Your task to perform on an android device: set an alarm Image 0: 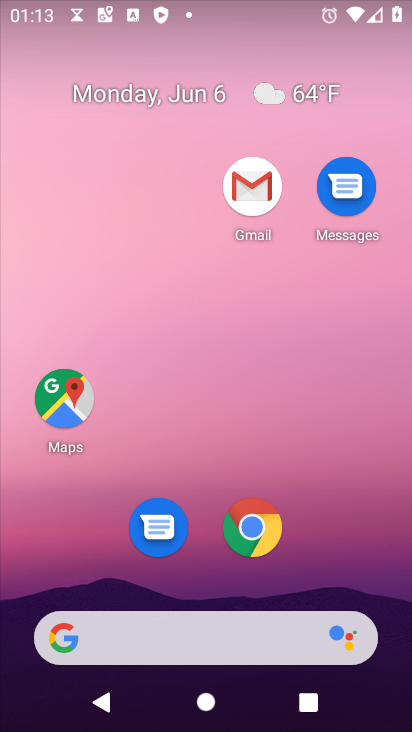
Step 0: drag from (351, 552) to (339, 31)
Your task to perform on an android device: set an alarm Image 1: 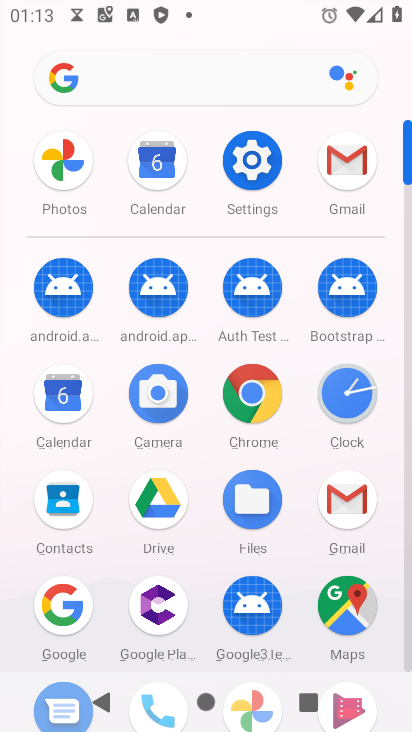
Step 1: click (356, 405)
Your task to perform on an android device: set an alarm Image 2: 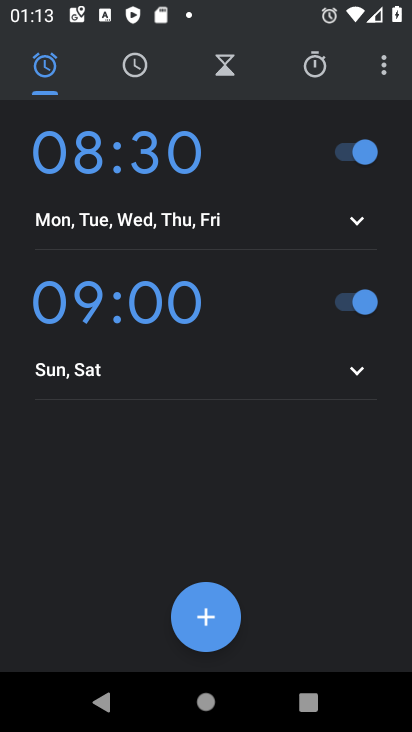
Step 2: task complete